Your task to perform on an android device: Go to internet settings Image 0: 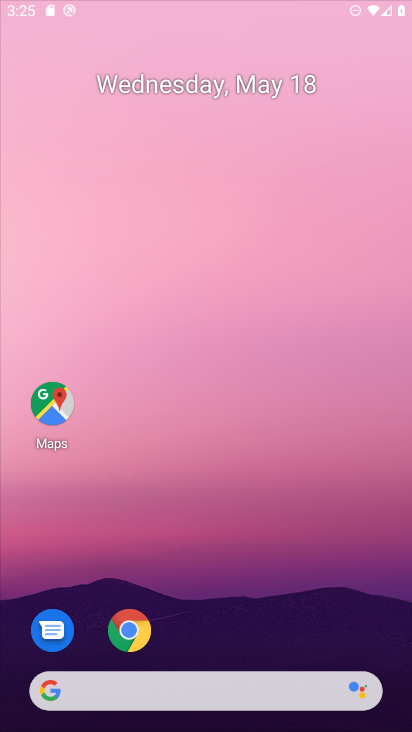
Step 0: press home button
Your task to perform on an android device: Go to internet settings Image 1: 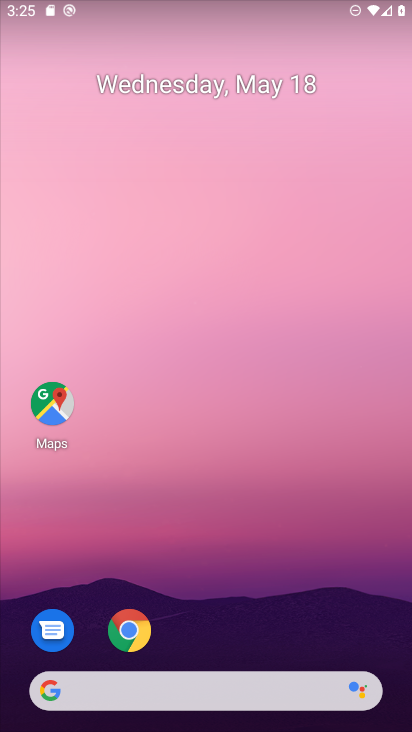
Step 1: drag from (200, 643) to (344, 115)
Your task to perform on an android device: Go to internet settings Image 2: 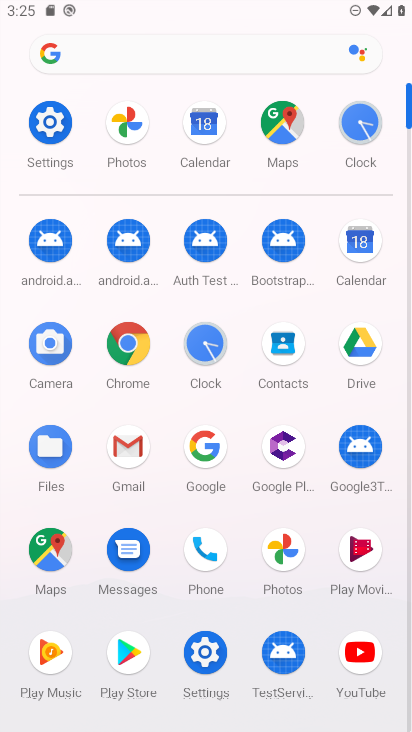
Step 2: click (49, 116)
Your task to perform on an android device: Go to internet settings Image 3: 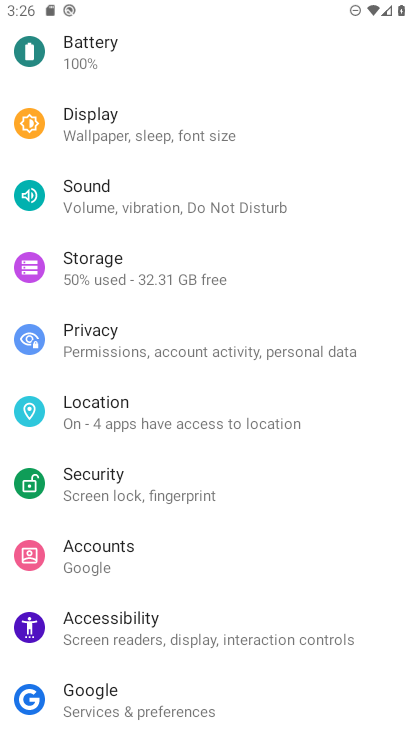
Step 3: drag from (133, 88) to (97, 716)
Your task to perform on an android device: Go to internet settings Image 4: 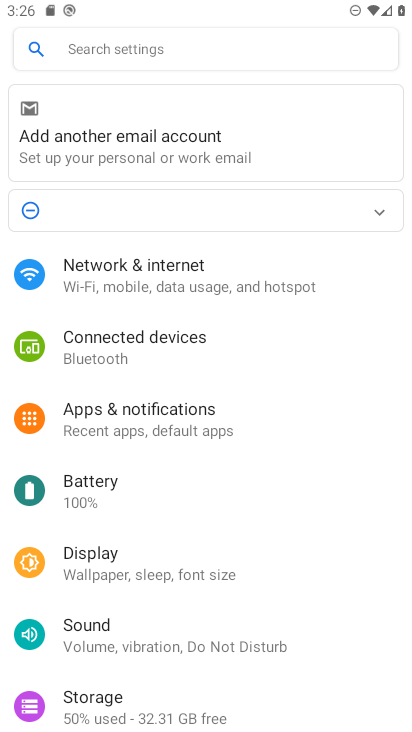
Step 4: click (178, 267)
Your task to perform on an android device: Go to internet settings Image 5: 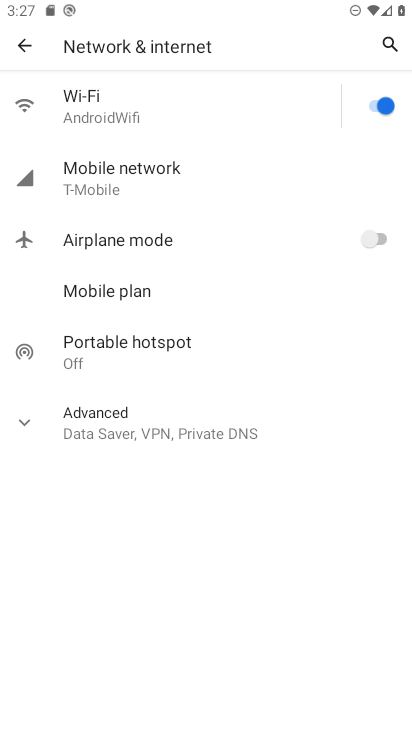
Step 5: click (119, 422)
Your task to perform on an android device: Go to internet settings Image 6: 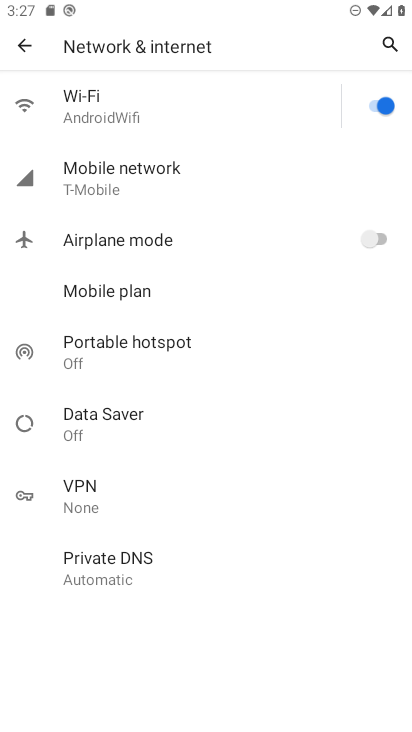
Step 6: task complete